Your task to perform on an android device: see creations saved in the google photos Image 0: 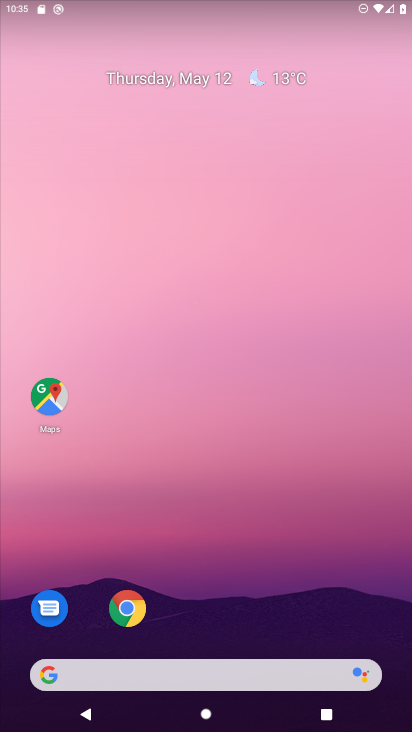
Step 0: drag from (224, 614) to (243, 80)
Your task to perform on an android device: see creations saved in the google photos Image 1: 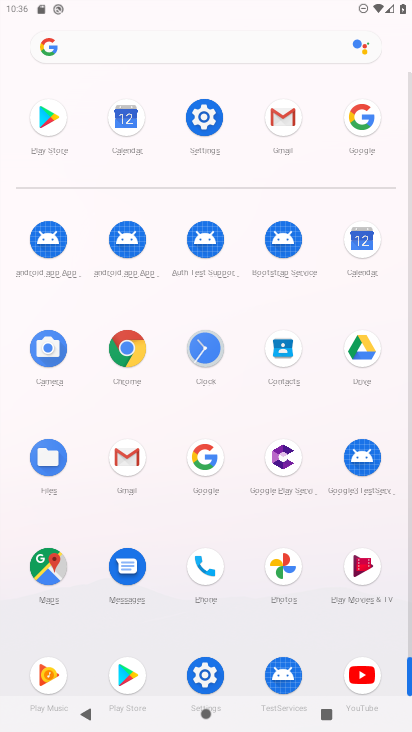
Step 1: click (290, 567)
Your task to perform on an android device: see creations saved in the google photos Image 2: 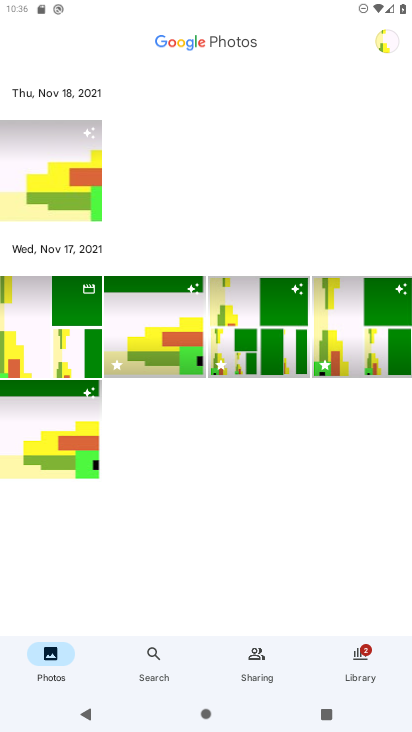
Step 2: click (149, 657)
Your task to perform on an android device: see creations saved in the google photos Image 3: 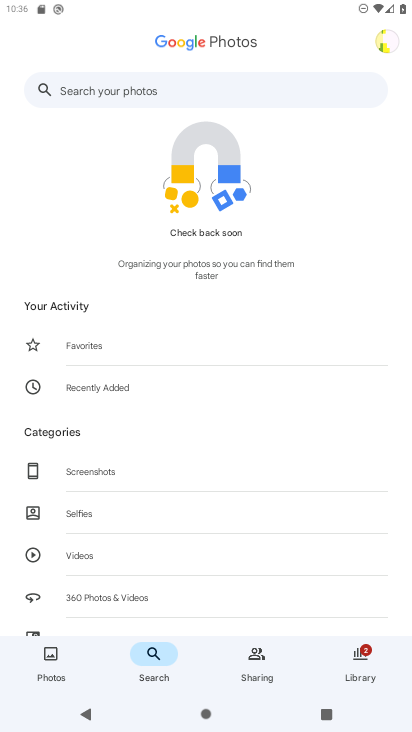
Step 3: drag from (190, 559) to (210, 162)
Your task to perform on an android device: see creations saved in the google photos Image 4: 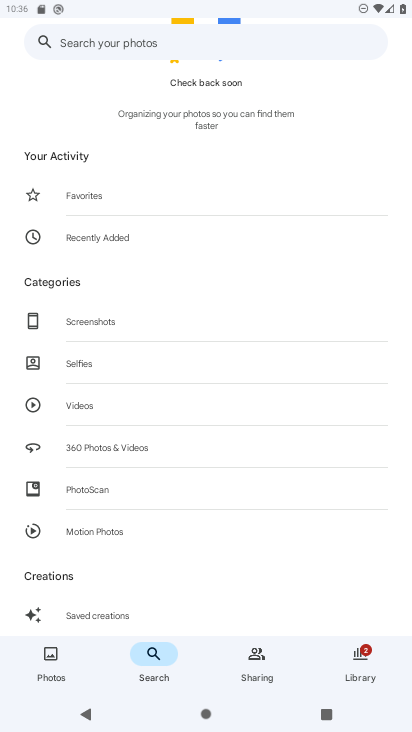
Step 4: drag from (220, 609) to (215, 373)
Your task to perform on an android device: see creations saved in the google photos Image 5: 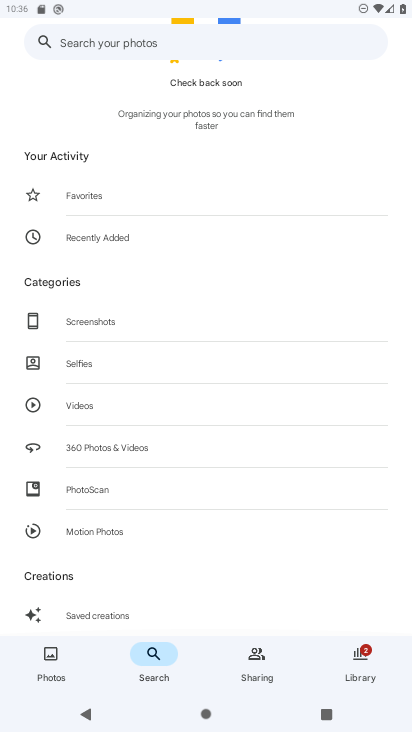
Step 5: click (118, 606)
Your task to perform on an android device: see creations saved in the google photos Image 6: 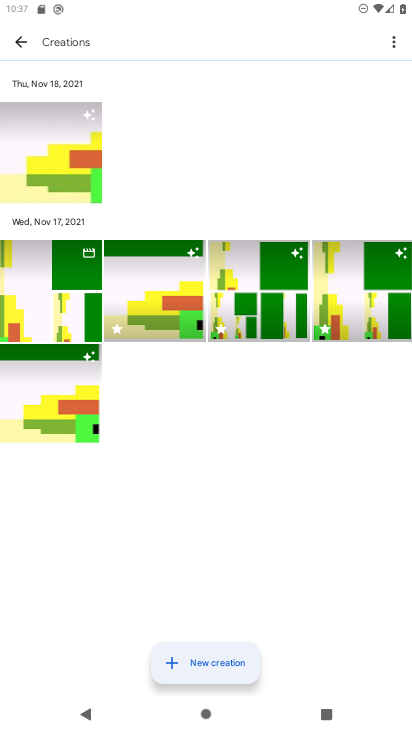
Step 6: task complete